Your task to perform on an android device: Open eBay Image 0: 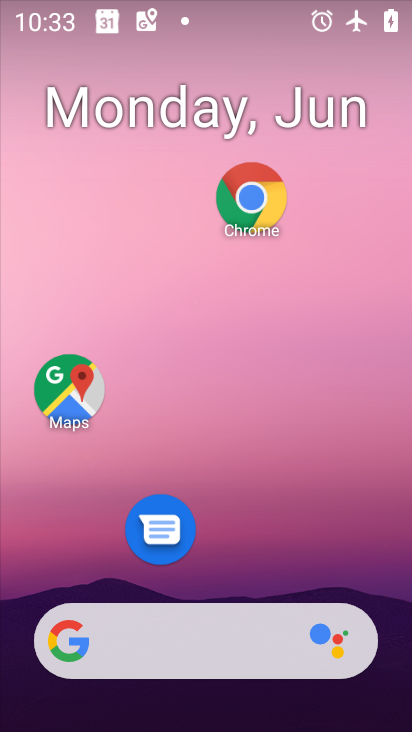
Step 0: click (229, 205)
Your task to perform on an android device: Open eBay Image 1: 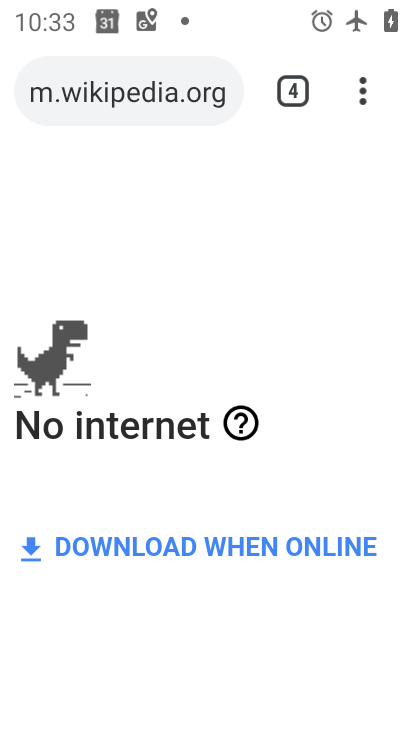
Step 1: task complete